Your task to perform on an android device: See recent photos Image 0: 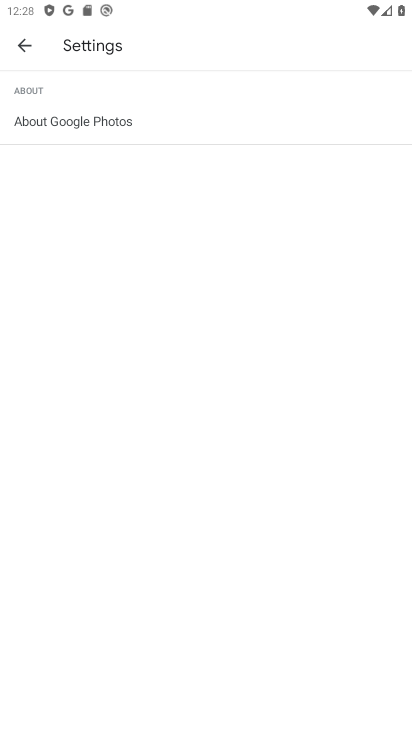
Step 0: click (18, 43)
Your task to perform on an android device: See recent photos Image 1: 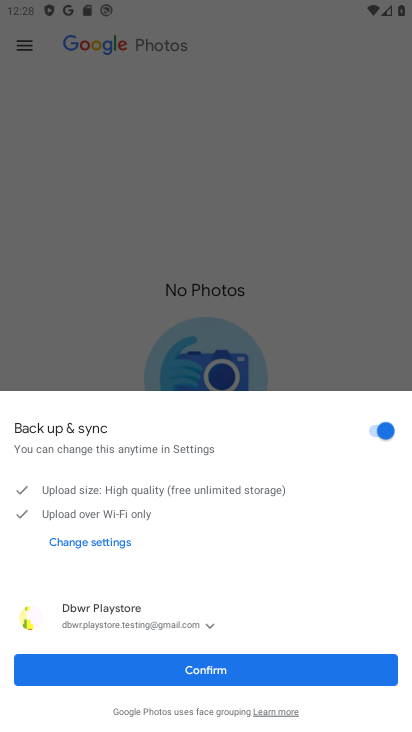
Step 1: click (280, 679)
Your task to perform on an android device: See recent photos Image 2: 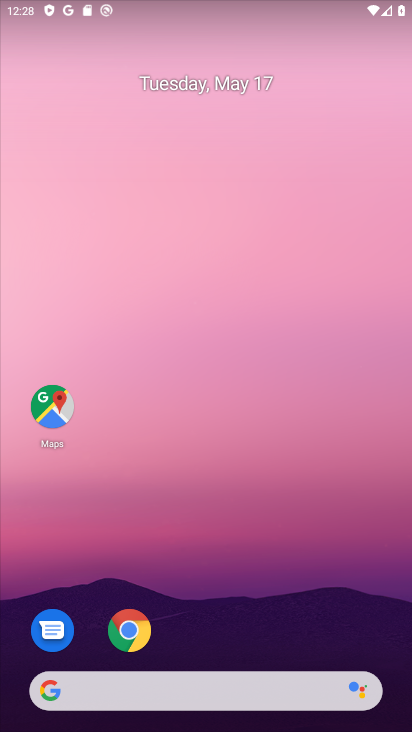
Step 2: drag from (212, 532) to (135, 148)
Your task to perform on an android device: See recent photos Image 3: 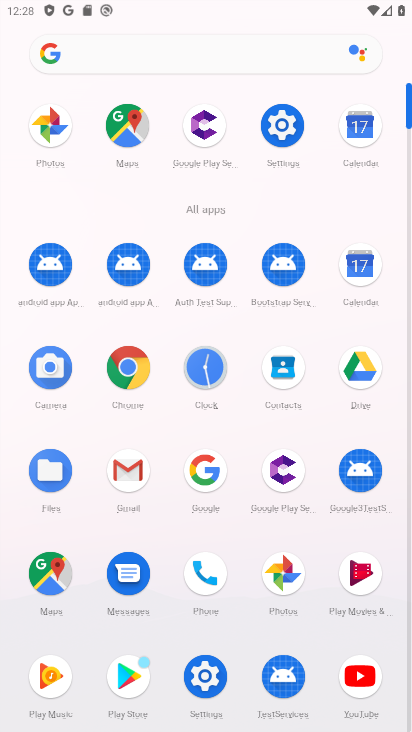
Step 3: click (62, 143)
Your task to perform on an android device: See recent photos Image 4: 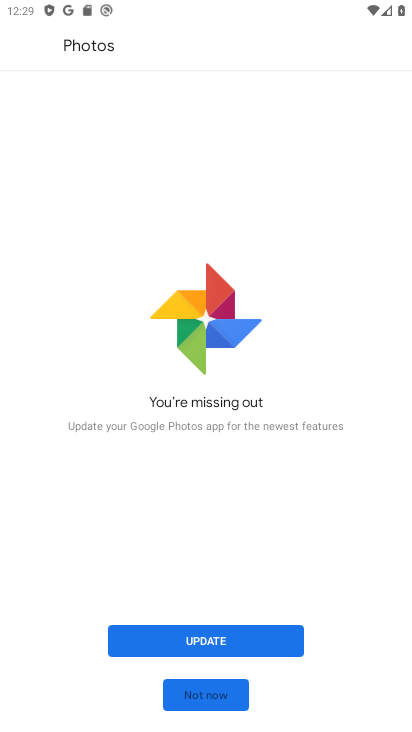
Step 4: click (213, 649)
Your task to perform on an android device: See recent photos Image 5: 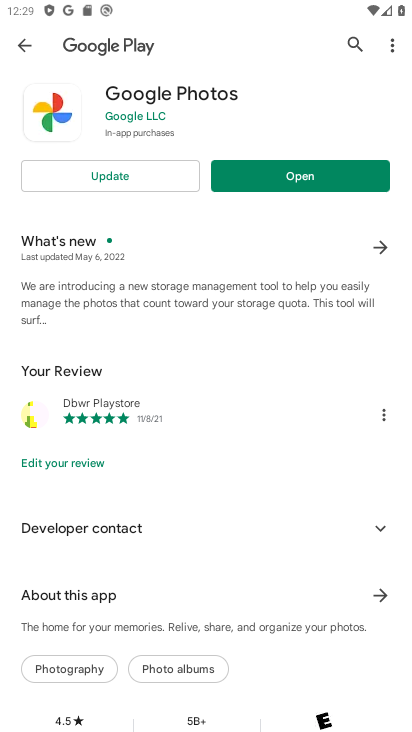
Step 5: click (134, 185)
Your task to perform on an android device: See recent photos Image 6: 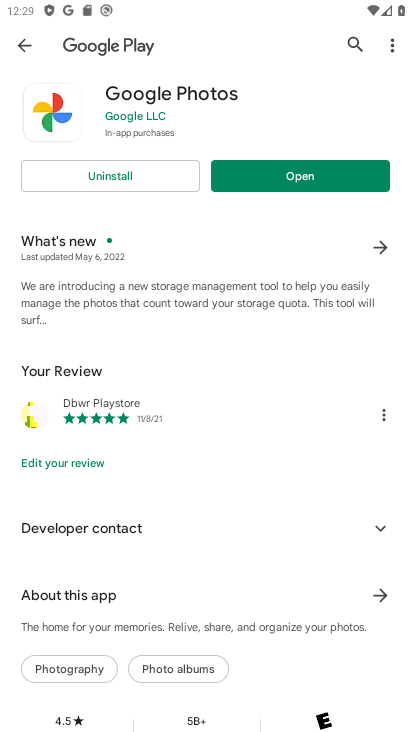
Step 6: click (317, 174)
Your task to perform on an android device: See recent photos Image 7: 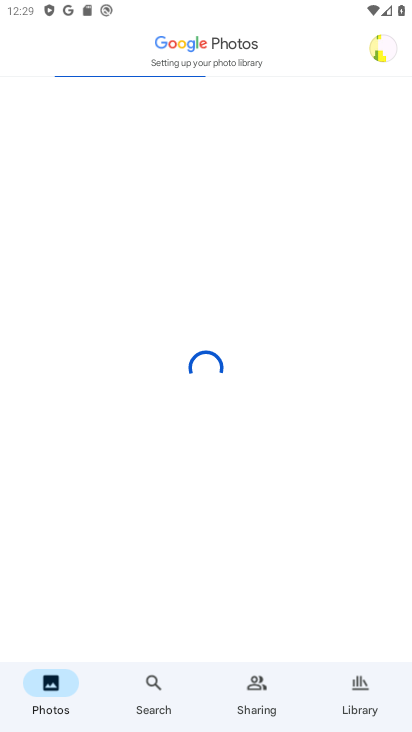
Step 7: click (358, 696)
Your task to perform on an android device: See recent photos Image 8: 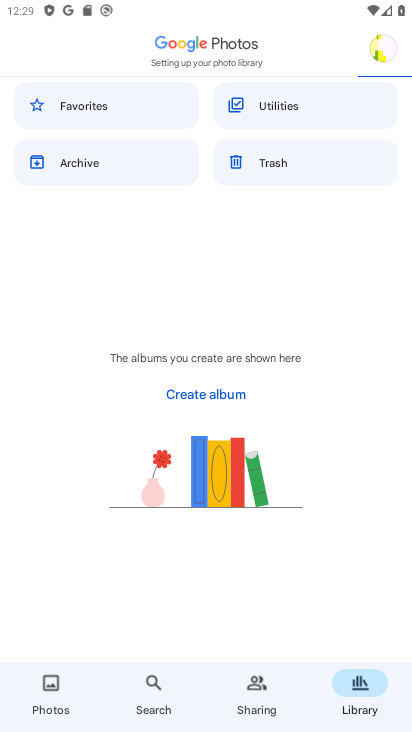
Step 8: click (139, 148)
Your task to perform on an android device: See recent photos Image 9: 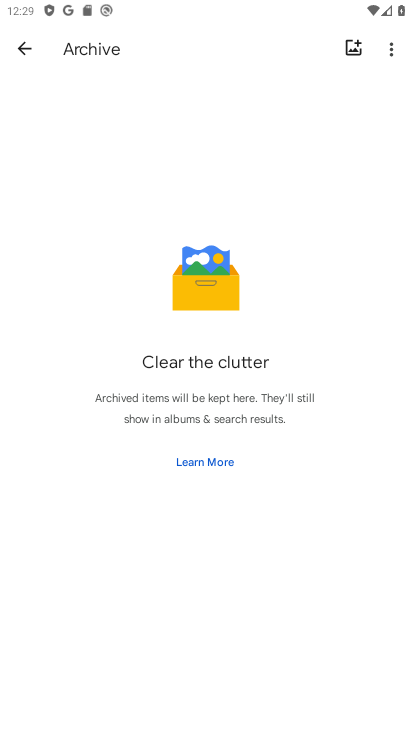
Step 9: task complete